Your task to perform on an android device: Go to Android settings Image 0: 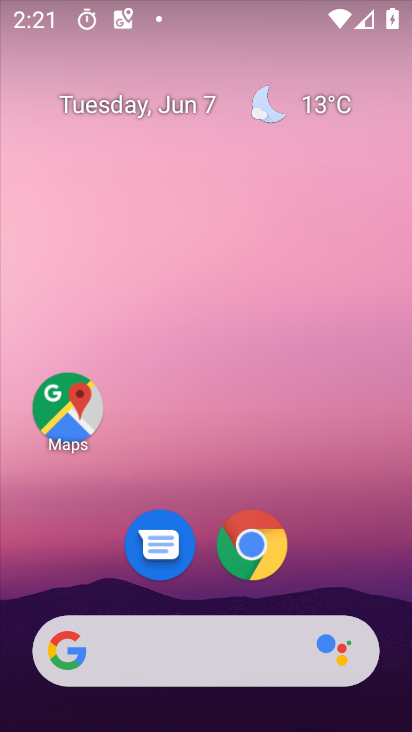
Step 0: drag from (335, 501) to (137, 3)
Your task to perform on an android device: Go to Android settings Image 1: 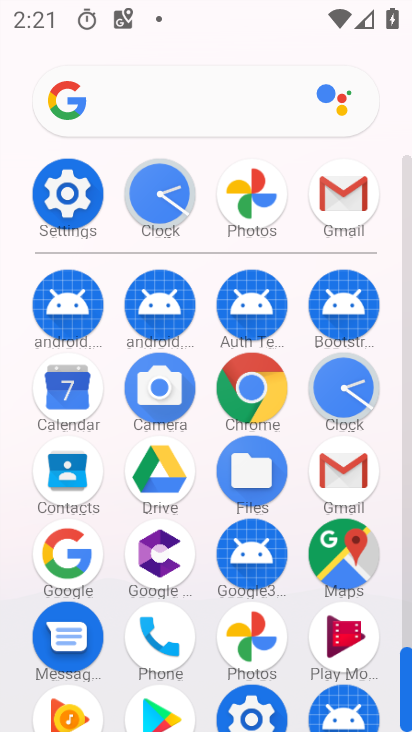
Step 1: click (89, 198)
Your task to perform on an android device: Go to Android settings Image 2: 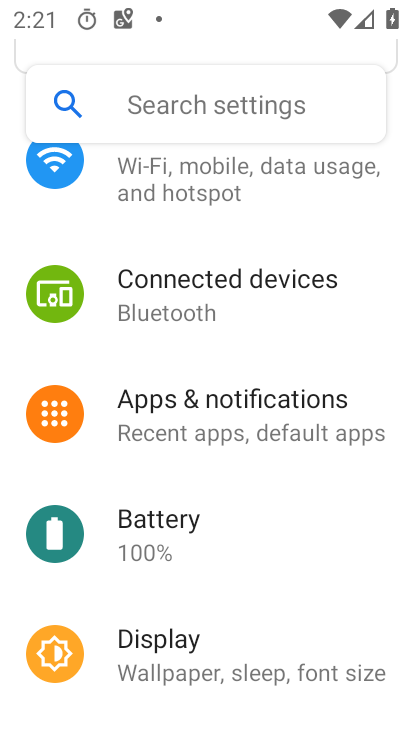
Step 2: drag from (200, 628) to (166, 43)
Your task to perform on an android device: Go to Android settings Image 3: 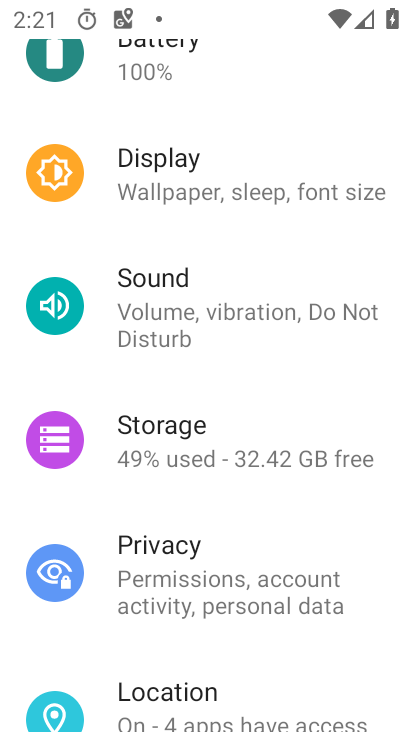
Step 3: drag from (255, 624) to (266, 187)
Your task to perform on an android device: Go to Android settings Image 4: 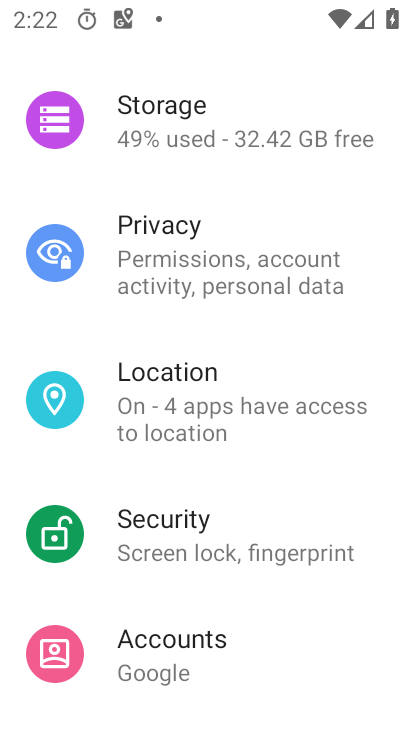
Step 4: drag from (220, 620) to (180, 194)
Your task to perform on an android device: Go to Android settings Image 5: 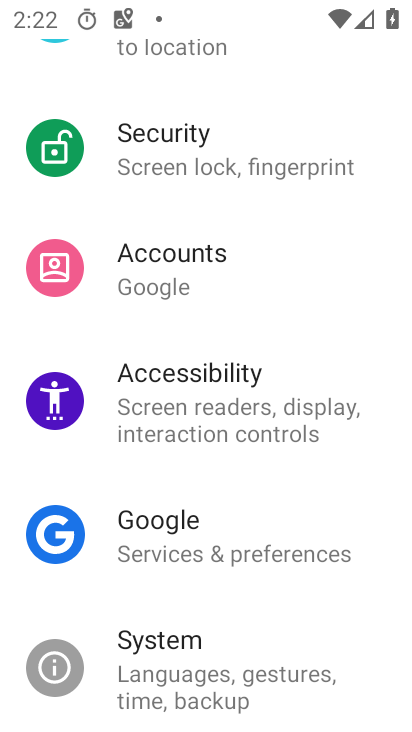
Step 5: drag from (231, 591) to (169, 213)
Your task to perform on an android device: Go to Android settings Image 6: 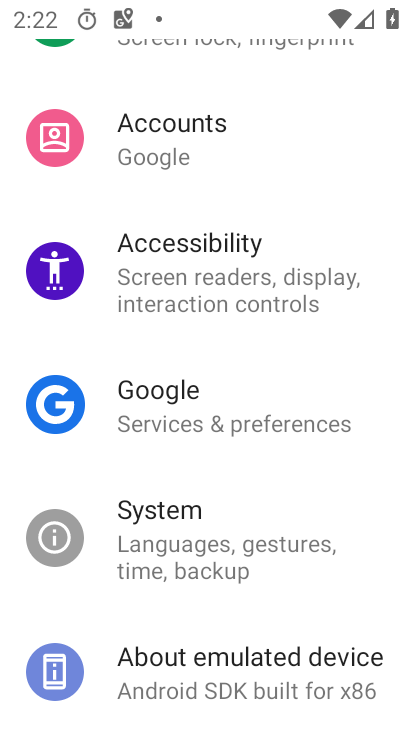
Step 6: click (209, 671)
Your task to perform on an android device: Go to Android settings Image 7: 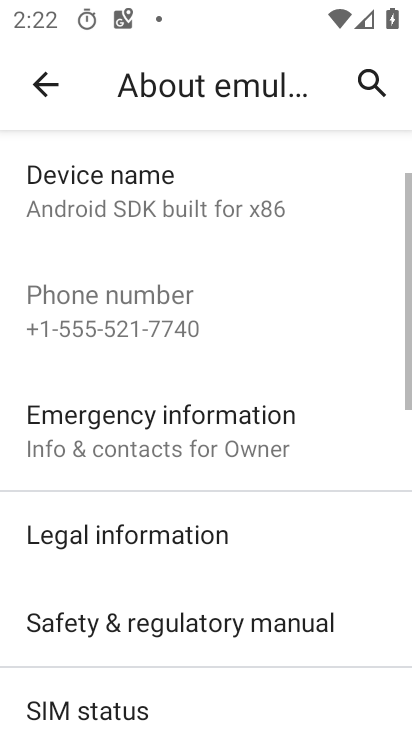
Step 7: drag from (252, 623) to (186, 43)
Your task to perform on an android device: Go to Android settings Image 8: 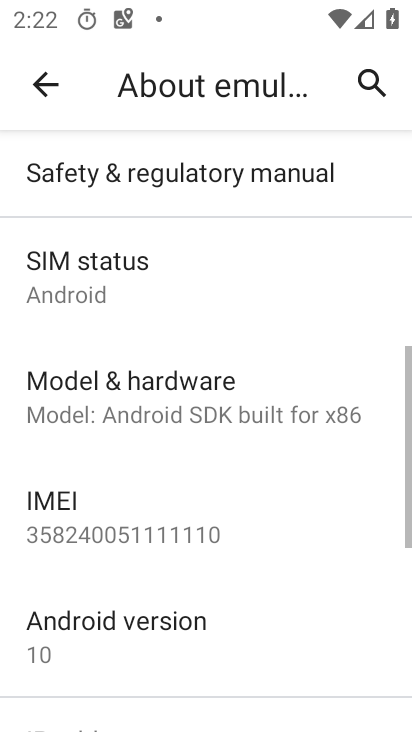
Step 8: drag from (232, 598) to (291, 212)
Your task to perform on an android device: Go to Android settings Image 9: 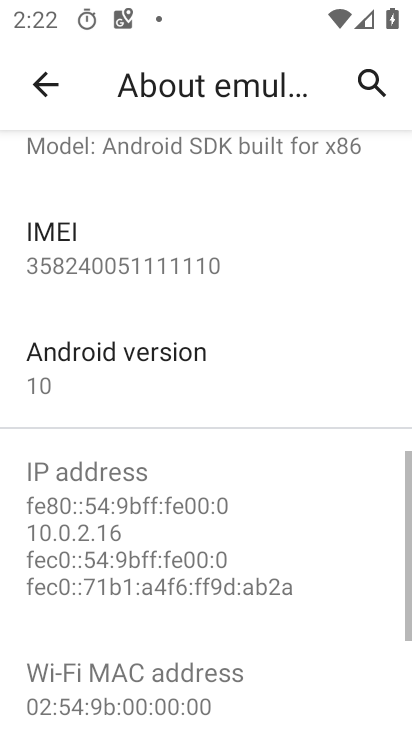
Step 9: click (146, 365)
Your task to perform on an android device: Go to Android settings Image 10: 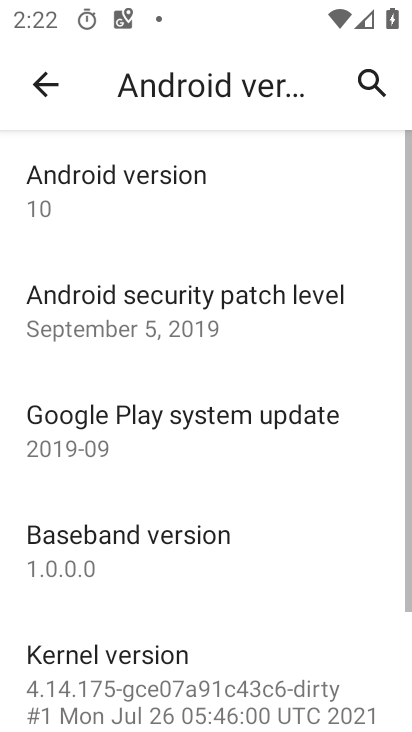
Step 10: task complete